Your task to perform on an android device: Search for seafood restaurants on Google Maps Image 0: 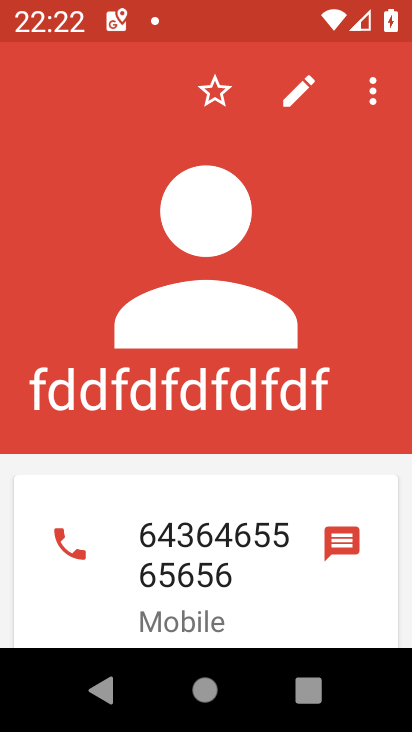
Step 0: press home button
Your task to perform on an android device: Search for seafood restaurants on Google Maps Image 1: 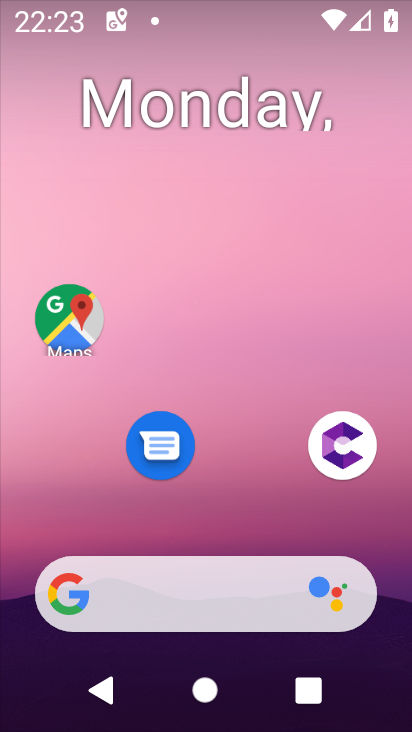
Step 1: click (47, 340)
Your task to perform on an android device: Search for seafood restaurants on Google Maps Image 2: 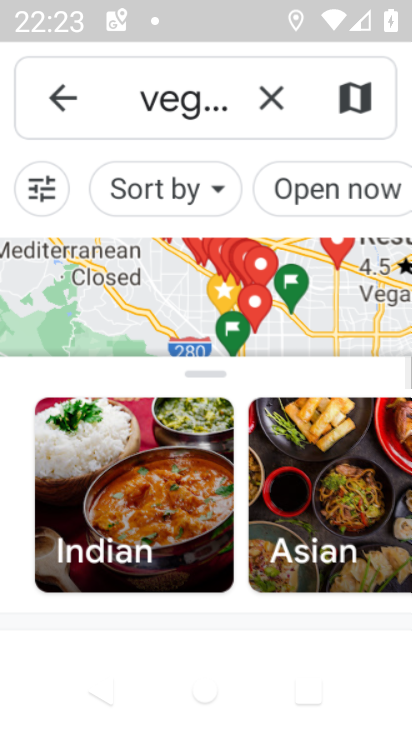
Step 2: click (280, 98)
Your task to perform on an android device: Search for seafood restaurants on Google Maps Image 3: 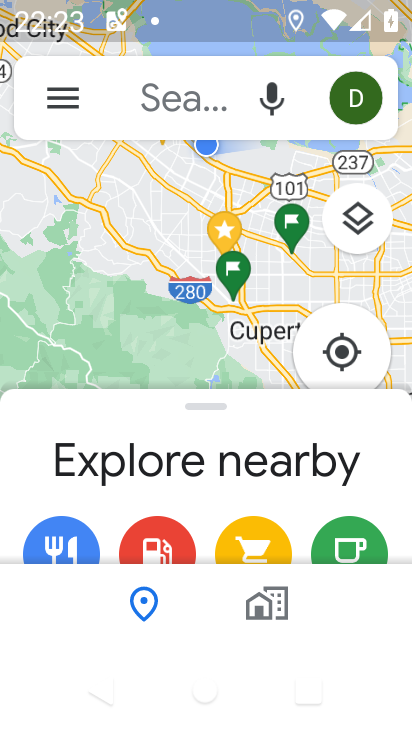
Step 3: click (136, 106)
Your task to perform on an android device: Search for seafood restaurants on Google Maps Image 4: 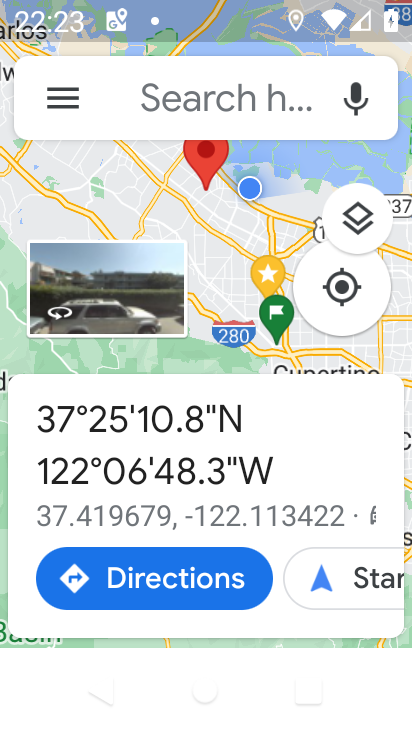
Step 4: click (139, 102)
Your task to perform on an android device: Search for seafood restaurants on Google Maps Image 5: 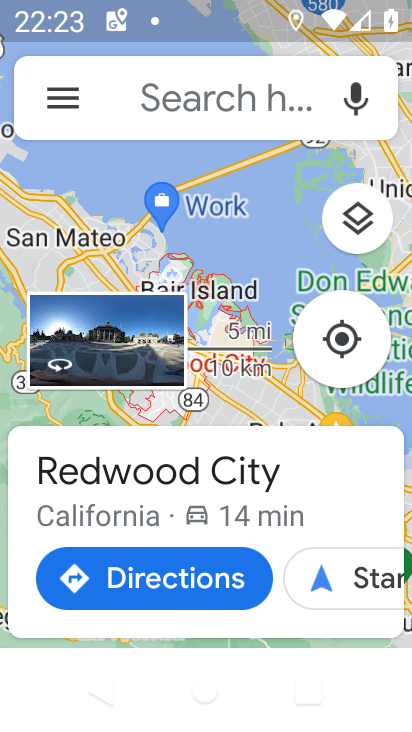
Step 5: click (150, 97)
Your task to perform on an android device: Search for seafood restaurants on Google Maps Image 6: 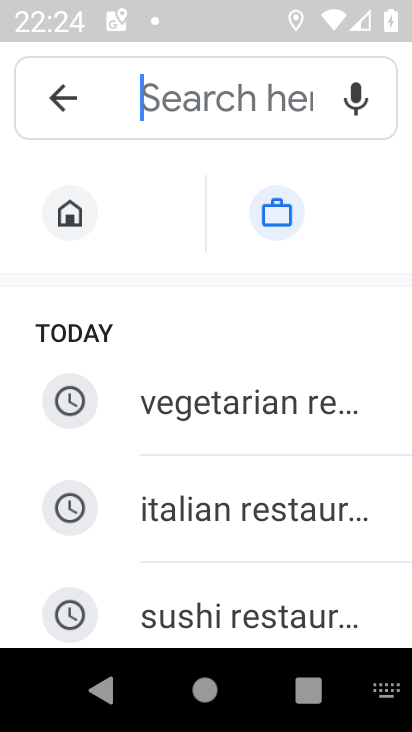
Step 6: type "seafood restaurant"
Your task to perform on an android device: Search for seafood restaurants on Google Maps Image 7: 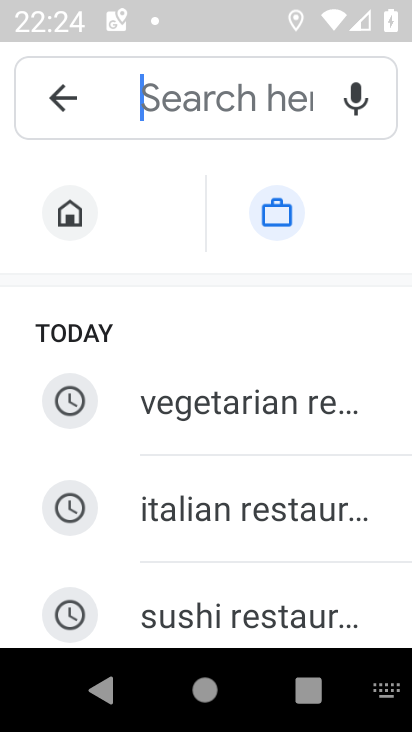
Step 7: click (266, 94)
Your task to perform on an android device: Search for seafood restaurants on Google Maps Image 8: 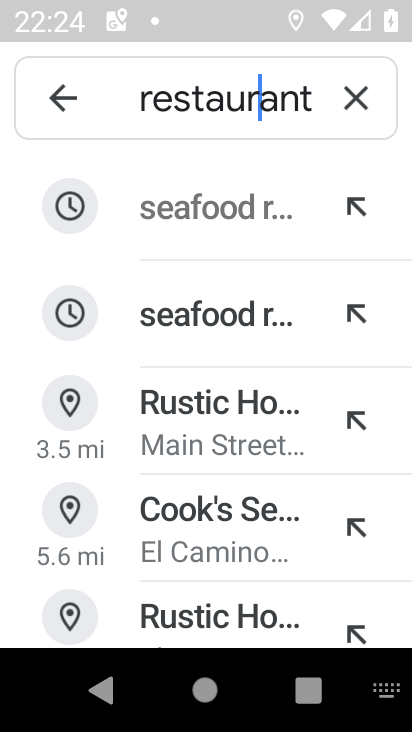
Step 8: click (180, 208)
Your task to perform on an android device: Search for seafood restaurants on Google Maps Image 9: 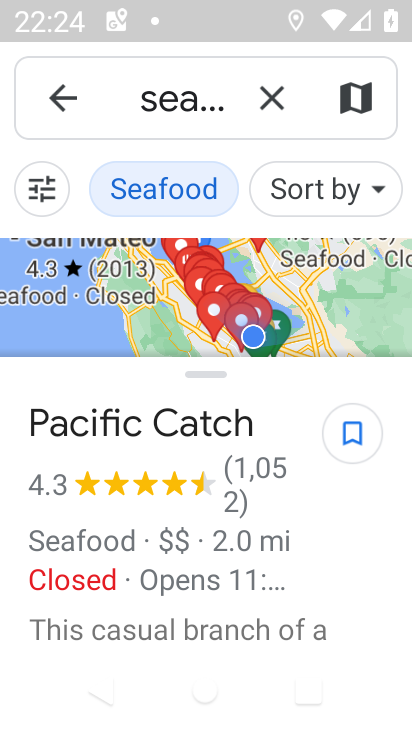
Step 9: task complete